Your task to perform on an android device: Check the news Image 0: 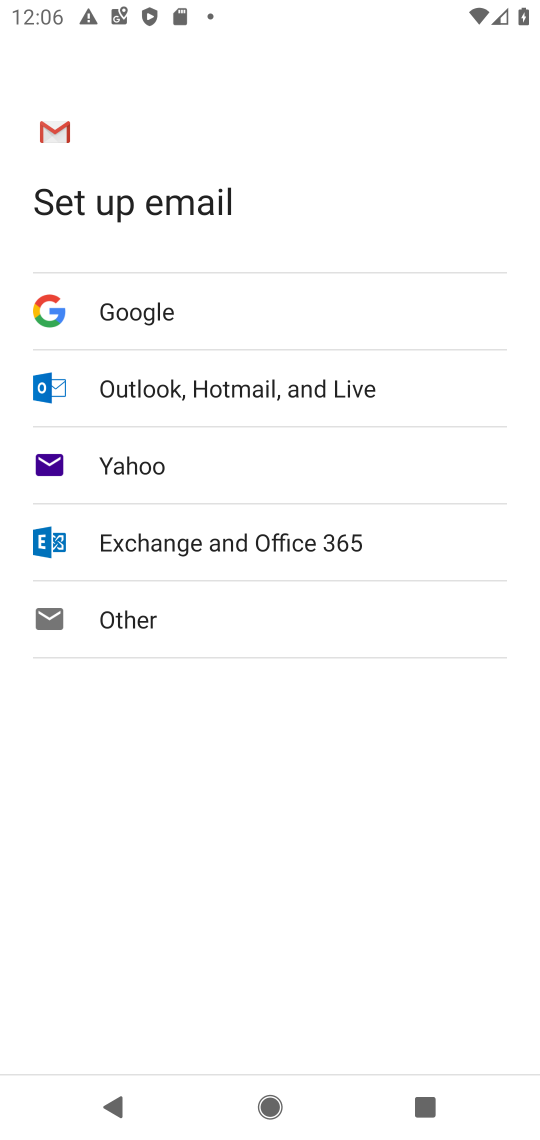
Step 0: press home button
Your task to perform on an android device: Check the news Image 1: 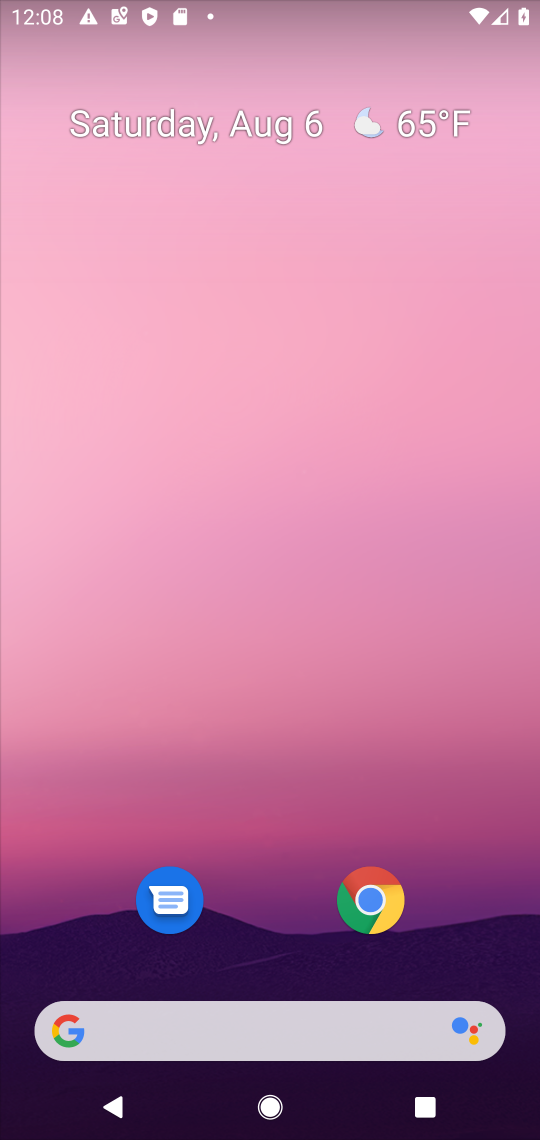
Step 1: task complete